Your task to perform on an android device: turn on data saver in the chrome app Image 0: 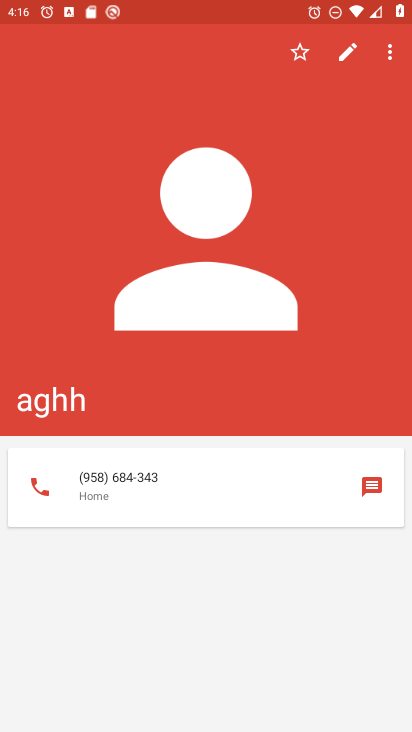
Step 0: press home button
Your task to perform on an android device: turn on data saver in the chrome app Image 1: 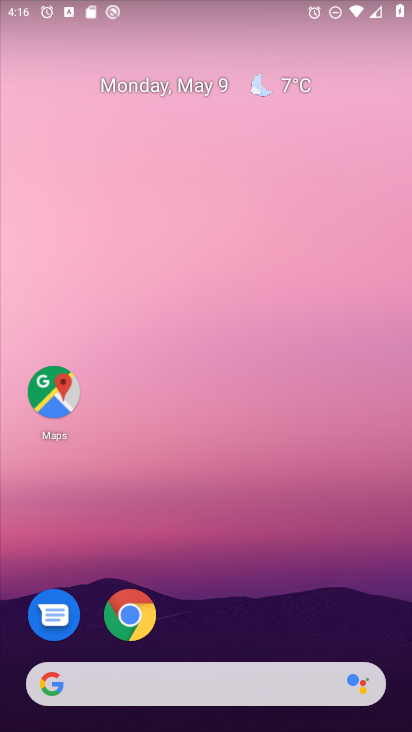
Step 1: click (127, 612)
Your task to perform on an android device: turn on data saver in the chrome app Image 2: 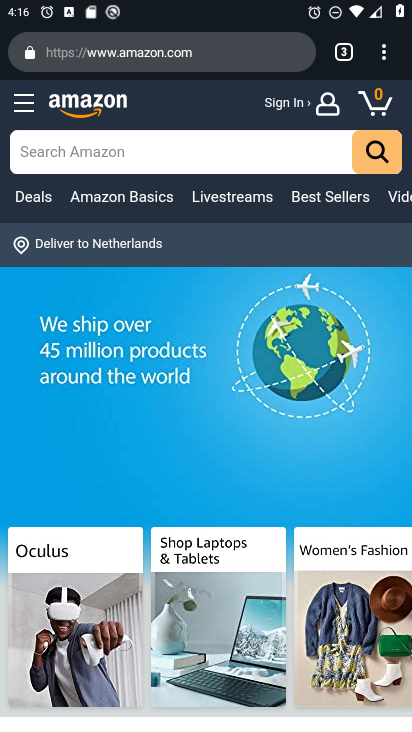
Step 2: click (382, 57)
Your task to perform on an android device: turn on data saver in the chrome app Image 3: 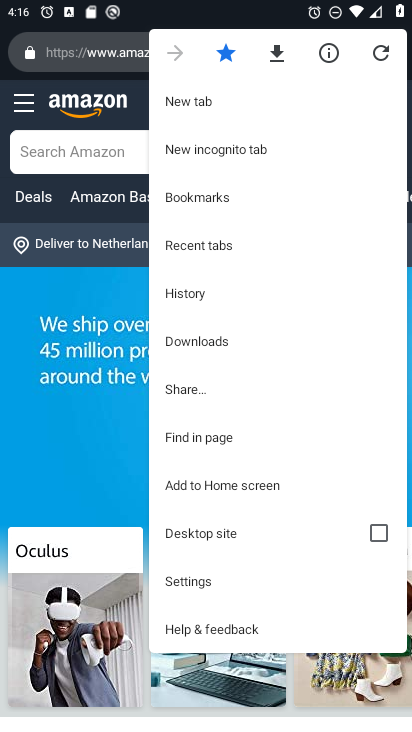
Step 3: click (194, 575)
Your task to perform on an android device: turn on data saver in the chrome app Image 4: 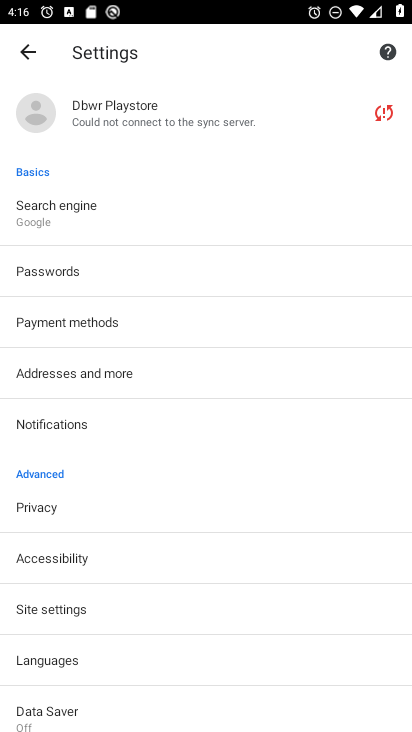
Step 4: click (44, 708)
Your task to perform on an android device: turn on data saver in the chrome app Image 5: 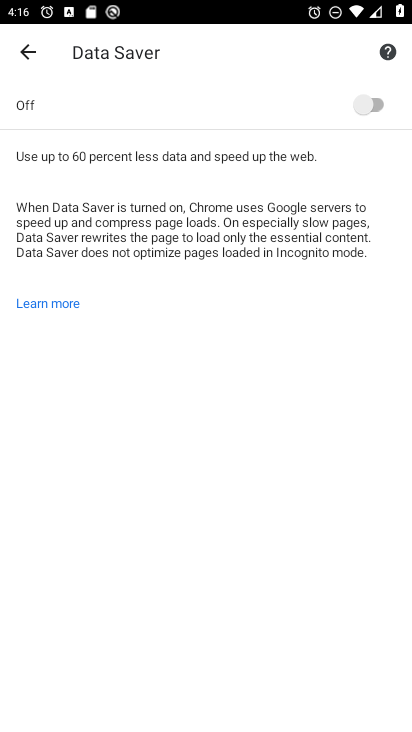
Step 5: click (380, 99)
Your task to perform on an android device: turn on data saver in the chrome app Image 6: 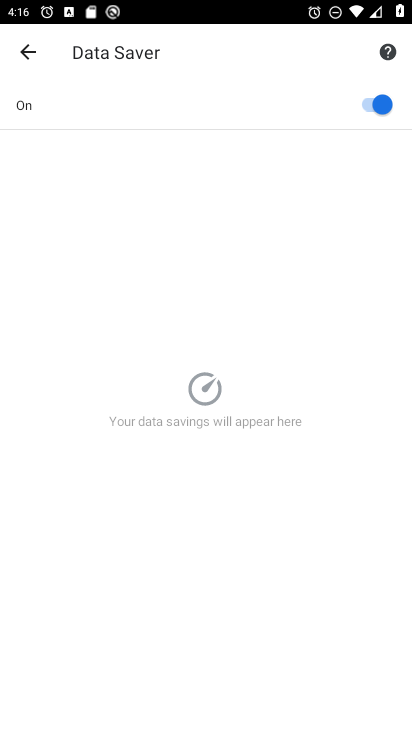
Step 6: task complete